Your task to perform on an android device: Open CNN.com Image 0: 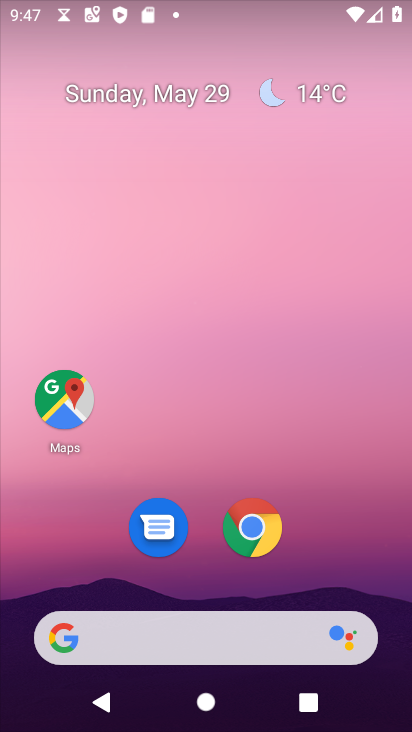
Step 0: press home button
Your task to perform on an android device: Open CNN.com Image 1: 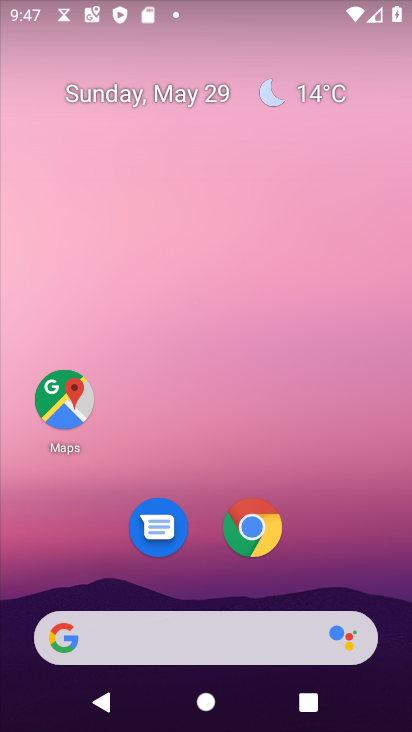
Step 1: click (256, 549)
Your task to perform on an android device: Open CNN.com Image 2: 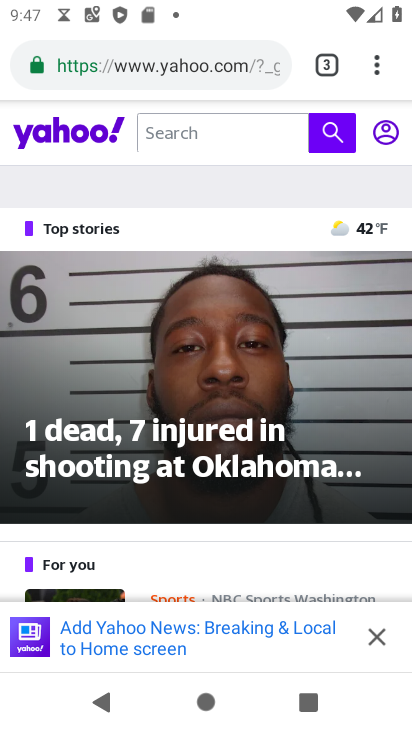
Step 2: drag from (373, 69) to (257, 125)
Your task to perform on an android device: Open CNN.com Image 3: 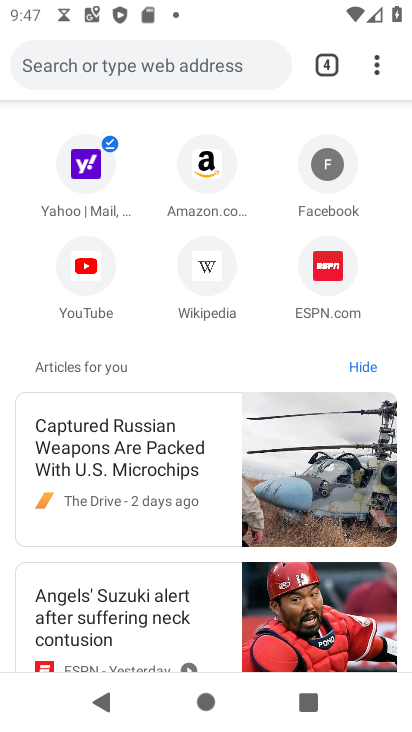
Step 3: click (133, 64)
Your task to perform on an android device: Open CNN.com Image 4: 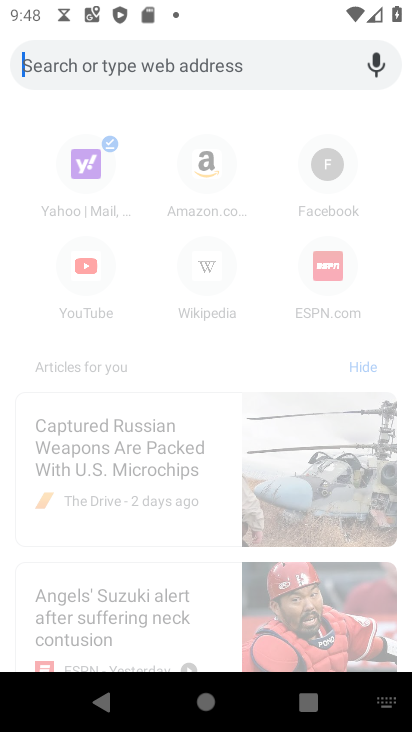
Step 4: type "cnn.com"
Your task to perform on an android device: Open CNN.com Image 5: 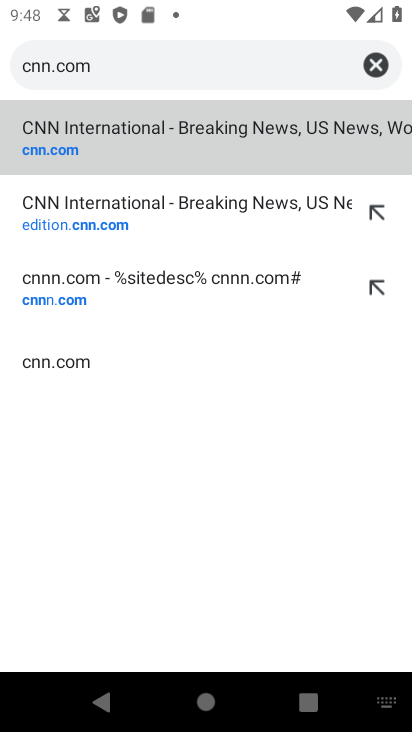
Step 5: click (200, 146)
Your task to perform on an android device: Open CNN.com Image 6: 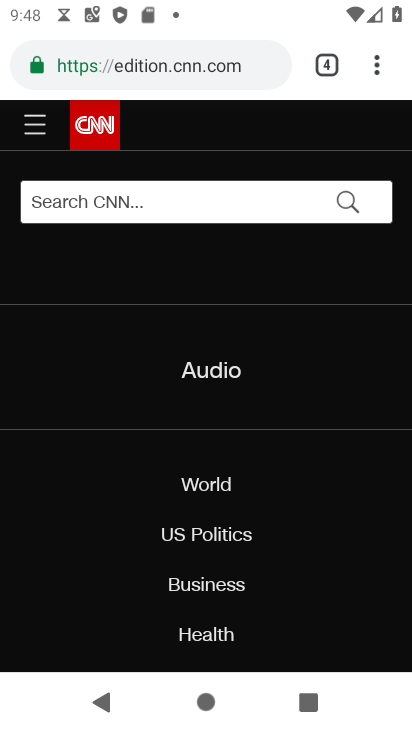
Step 6: task complete